Your task to perform on an android device: add a contact Image 0: 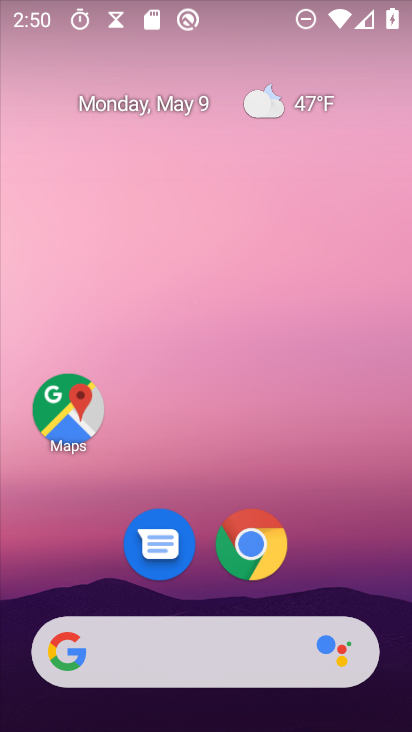
Step 0: drag from (363, 548) to (344, 1)
Your task to perform on an android device: add a contact Image 1: 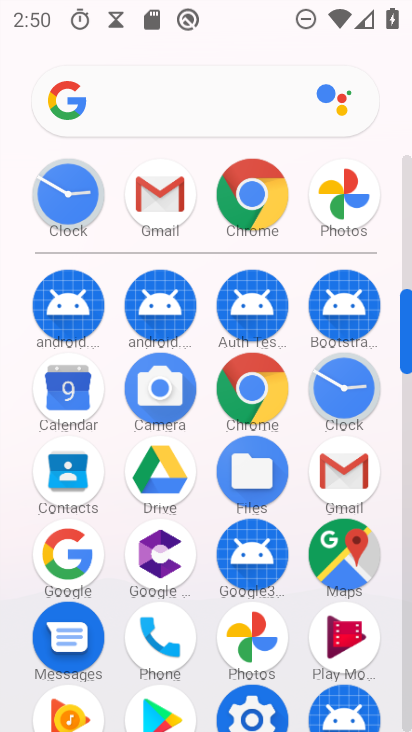
Step 1: click (161, 643)
Your task to perform on an android device: add a contact Image 2: 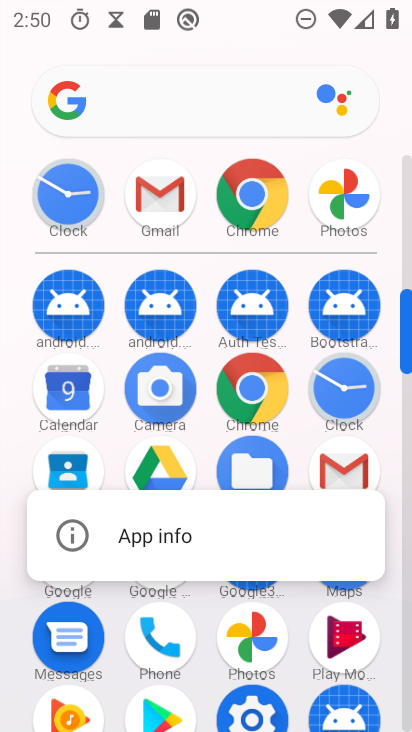
Step 2: press back button
Your task to perform on an android device: add a contact Image 3: 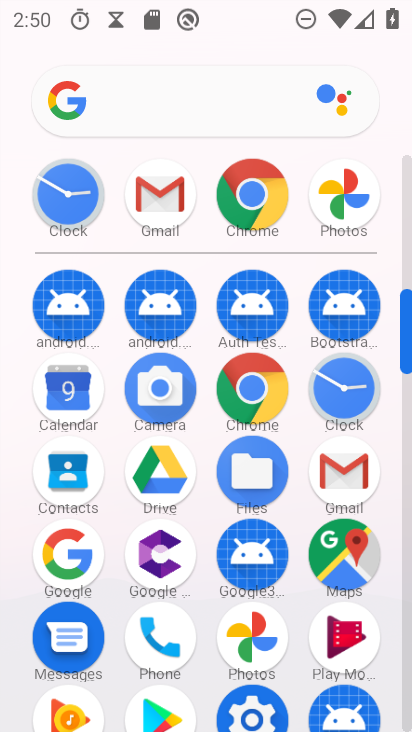
Step 3: click (61, 493)
Your task to perform on an android device: add a contact Image 4: 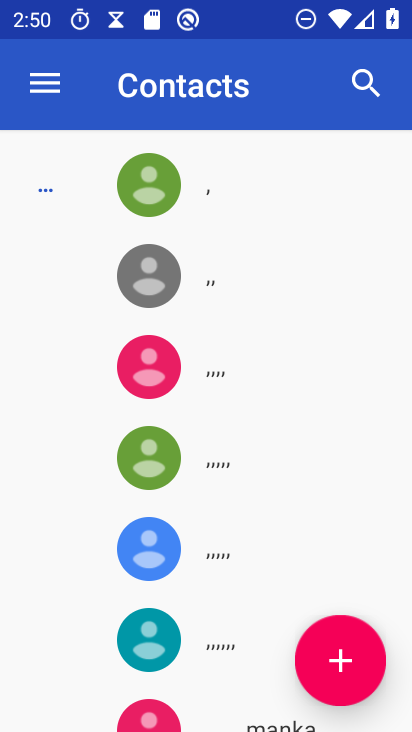
Step 4: click (334, 674)
Your task to perform on an android device: add a contact Image 5: 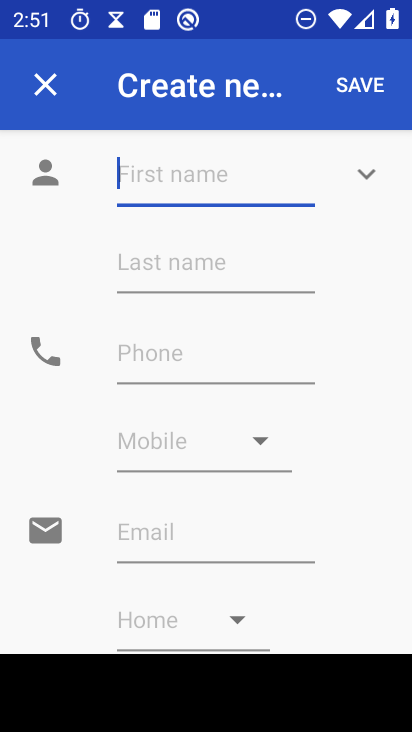
Step 5: type "dimy"
Your task to perform on an android device: add a contact Image 6: 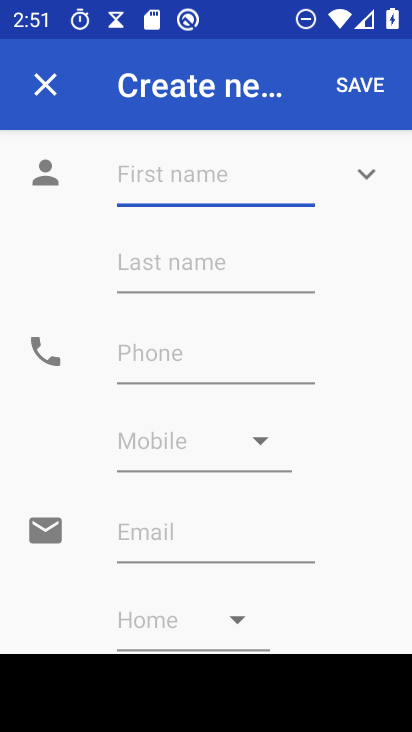
Step 6: click (195, 378)
Your task to perform on an android device: add a contact Image 7: 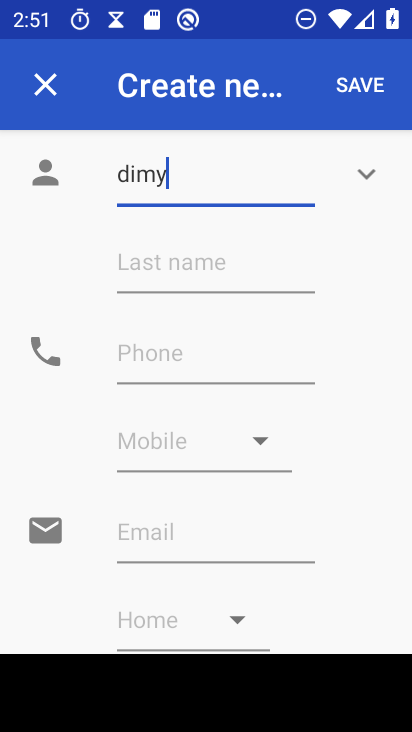
Step 7: click (198, 366)
Your task to perform on an android device: add a contact Image 8: 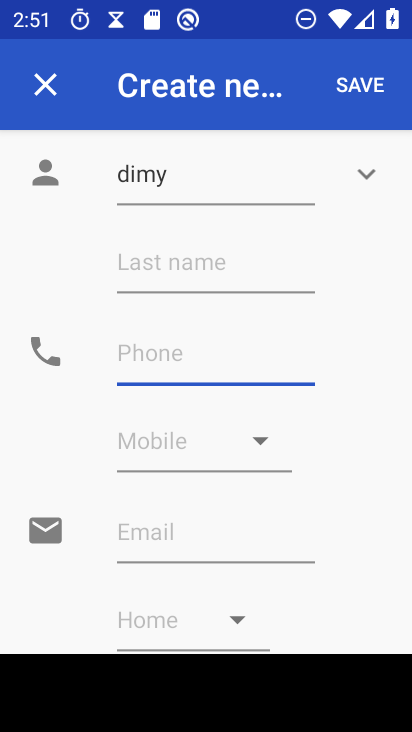
Step 8: type "45678976"
Your task to perform on an android device: add a contact Image 9: 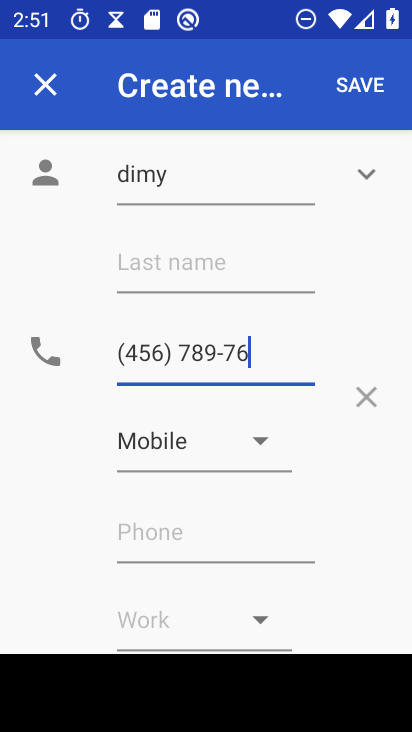
Step 9: click (362, 97)
Your task to perform on an android device: add a contact Image 10: 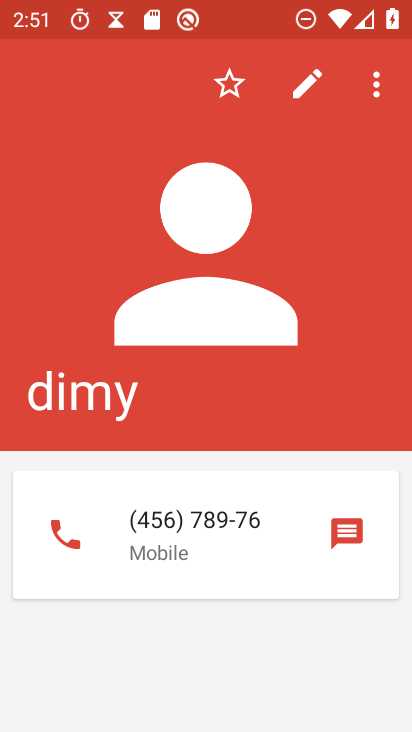
Step 10: task complete